Your task to perform on an android device: turn off translation in the chrome app Image 0: 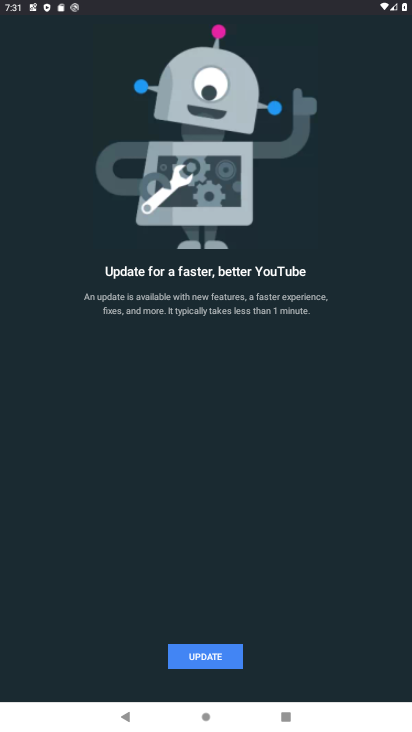
Step 0: click (76, 617)
Your task to perform on an android device: turn off translation in the chrome app Image 1: 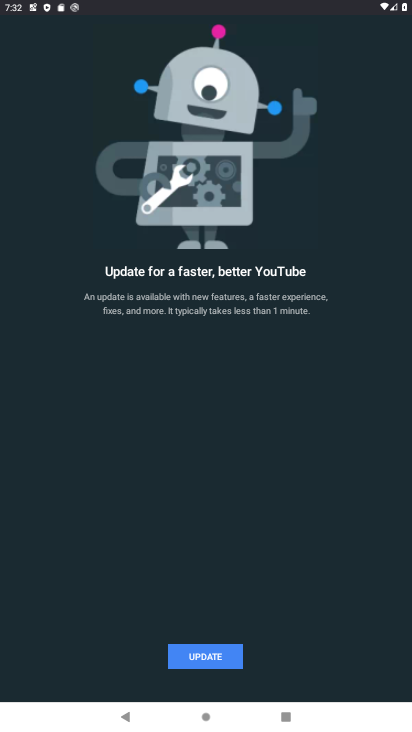
Step 1: press back button
Your task to perform on an android device: turn off translation in the chrome app Image 2: 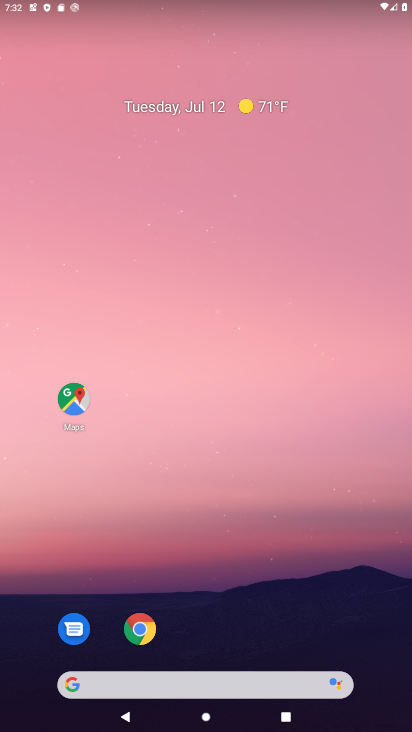
Step 2: click (207, 629)
Your task to perform on an android device: turn off translation in the chrome app Image 3: 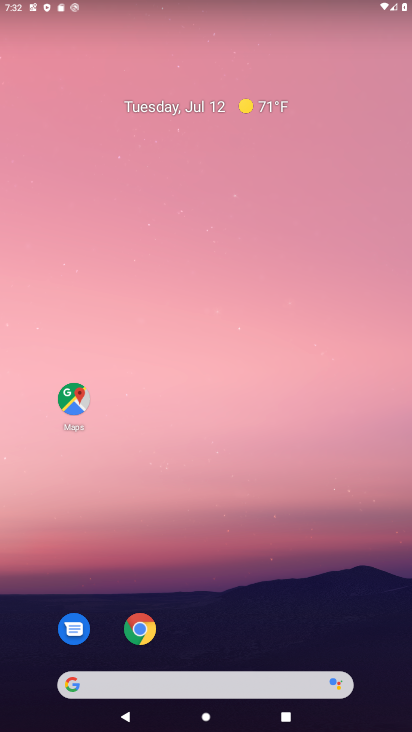
Step 3: click (142, 630)
Your task to perform on an android device: turn off translation in the chrome app Image 4: 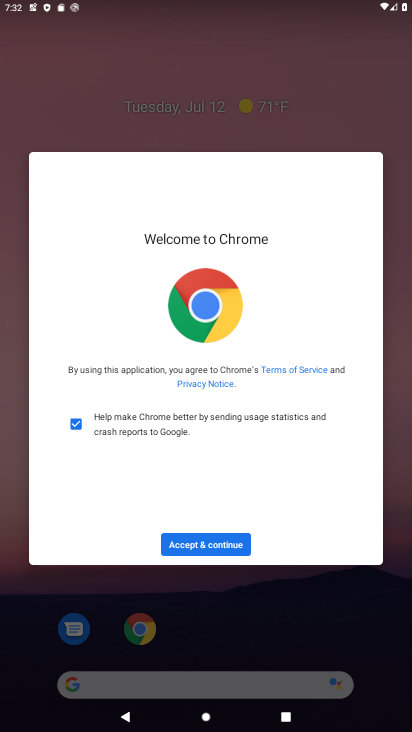
Step 4: click (225, 546)
Your task to perform on an android device: turn off translation in the chrome app Image 5: 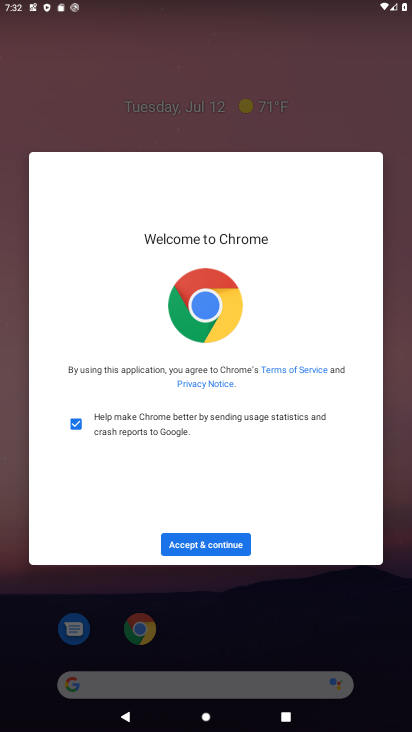
Step 5: click (225, 546)
Your task to perform on an android device: turn off translation in the chrome app Image 6: 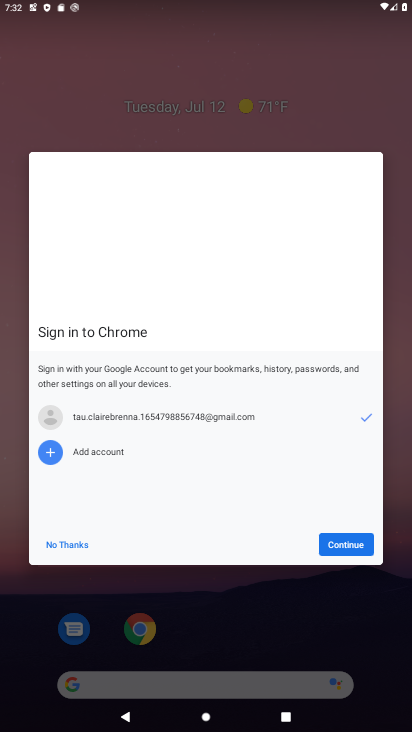
Step 6: click (347, 536)
Your task to perform on an android device: turn off translation in the chrome app Image 7: 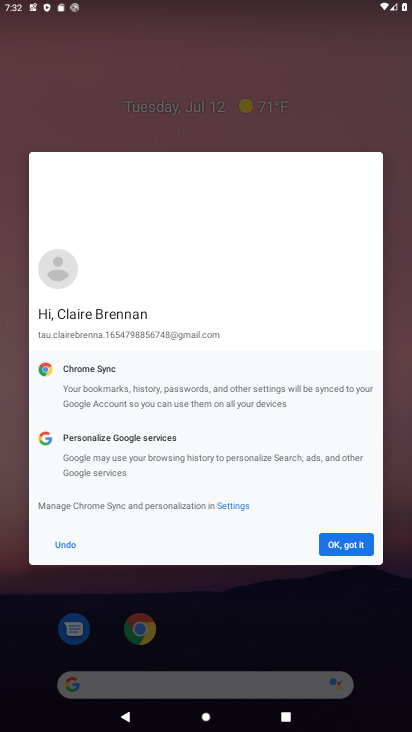
Step 7: click (347, 539)
Your task to perform on an android device: turn off translation in the chrome app Image 8: 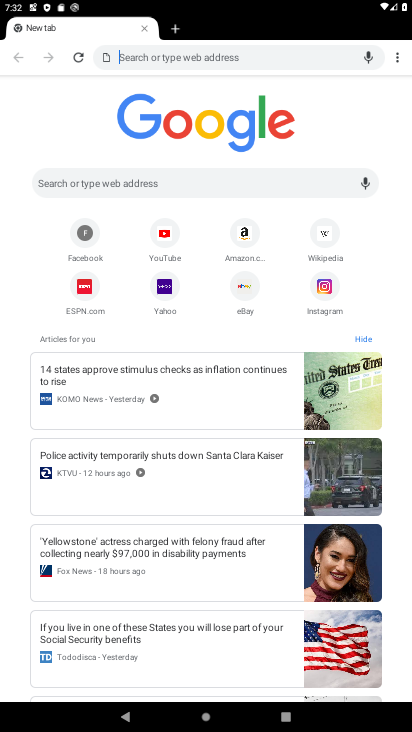
Step 8: click (395, 59)
Your task to perform on an android device: turn off translation in the chrome app Image 9: 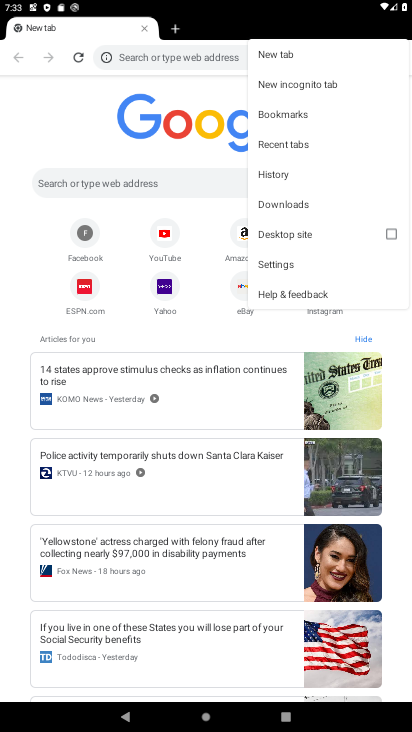
Step 9: click (264, 261)
Your task to perform on an android device: turn off translation in the chrome app Image 10: 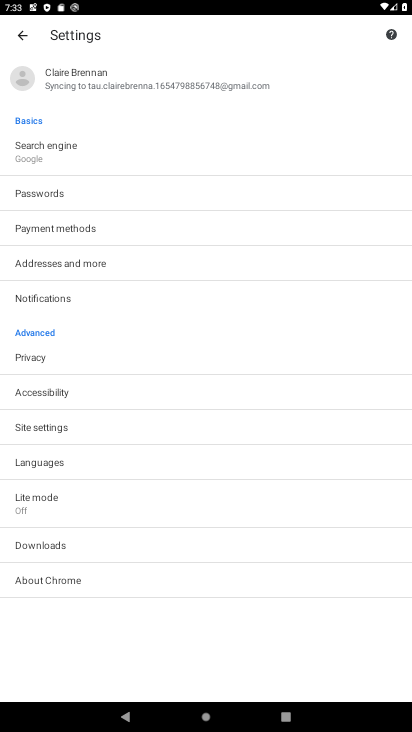
Step 10: click (43, 466)
Your task to perform on an android device: turn off translation in the chrome app Image 11: 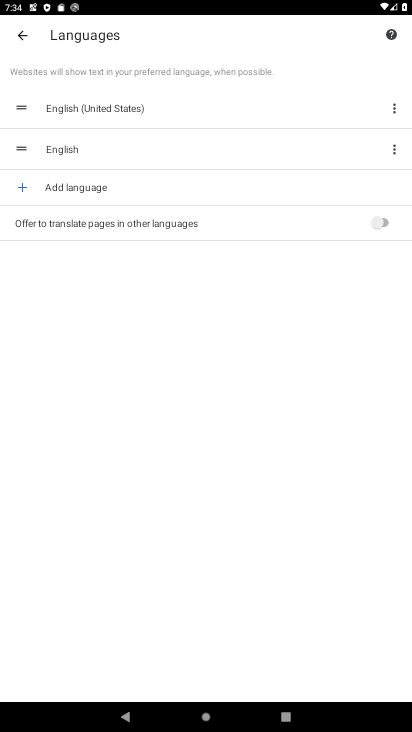
Step 11: task complete